Your task to perform on an android device: Check the news Image 0: 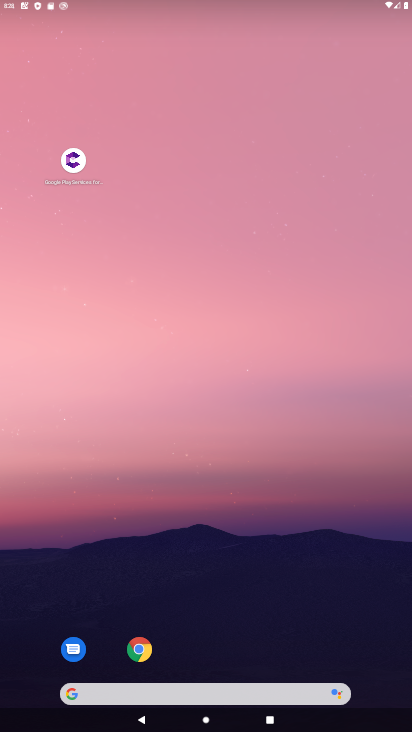
Step 0: press home button
Your task to perform on an android device: Check the news Image 1: 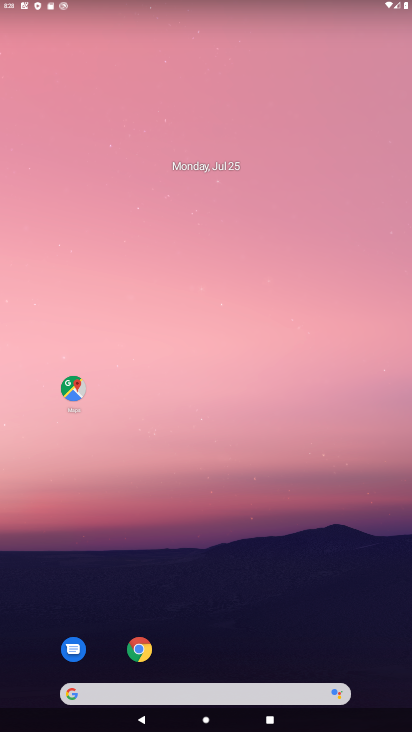
Step 1: click (202, 690)
Your task to perform on an android device: Check the news Image 2: 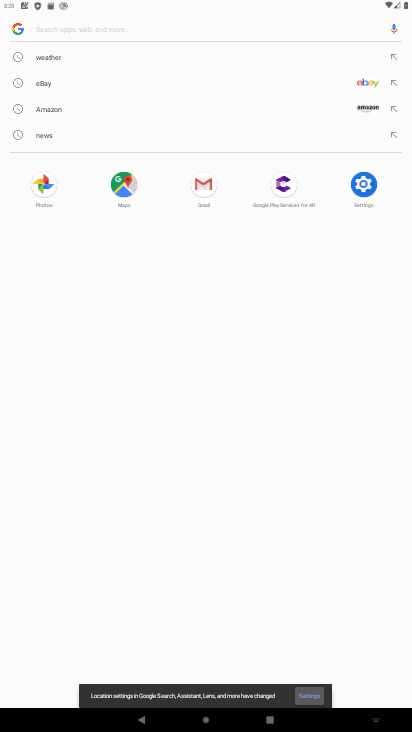
Step 2: click (42, 130)
Your task to perform on an android device: Check the news Image 3: 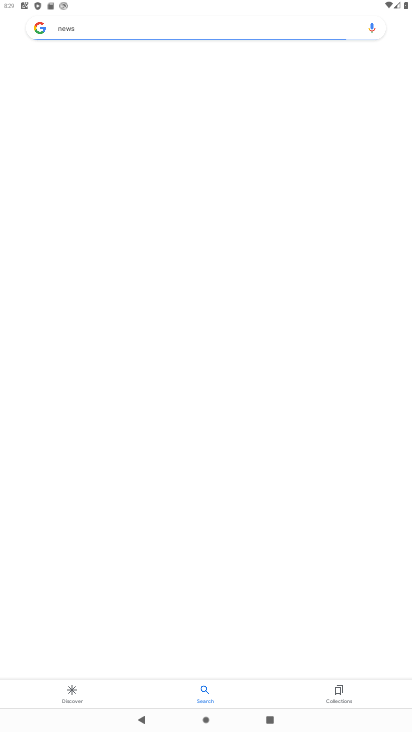
Step 3: task complete